Your task to perform on an android device: toggle pop-ups in chrome Image 0: 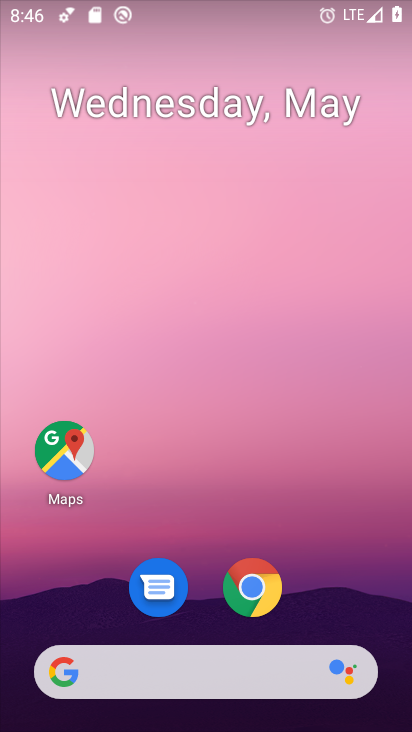
Step 0: click (258, 571)
Your task to perform on an android device: toggle pop-ups in chrome Image 1: 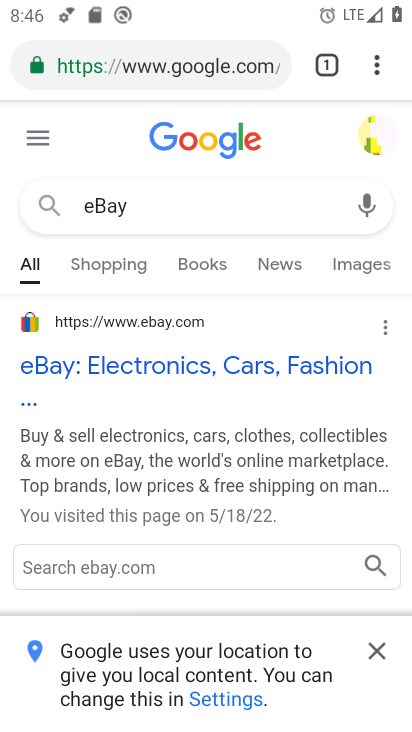
Step 1: click (381, 59)
Your task to perform on an android device: toggle pop-ups in chrome Image 2: 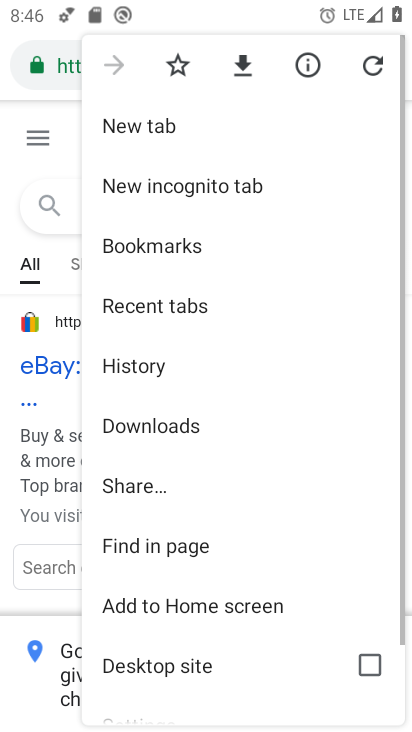
Step 2: drag from (163, 598) to (184, 362)
Your task to perform on an android device: toggle pop-ups in chrome Image 3: 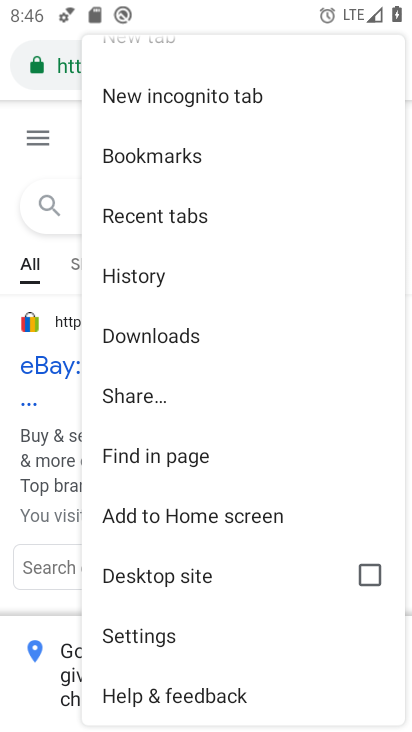
Step 3: click (153, 635)
Your task to perform on an android device: toggle pop-ups in chrome Image 4: 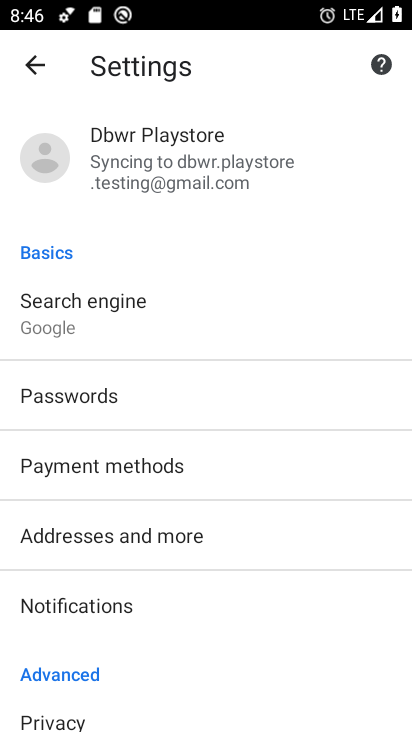
Step 4: drag from (168, 558) to (188, 309)
Your task to perform on an android device: toggle pop-ups in chrome Image 5: 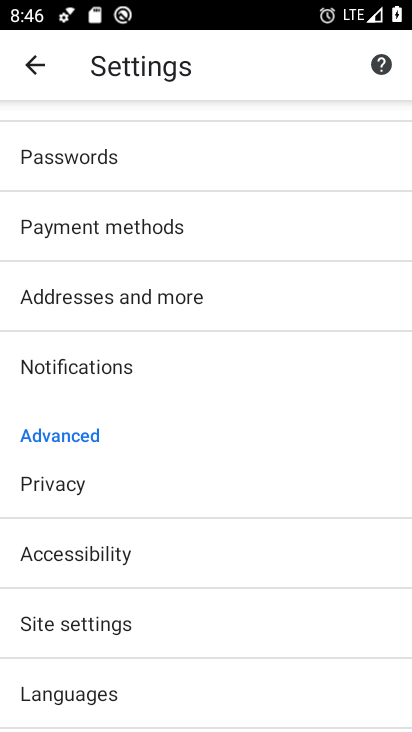
Step 5: click (94, 623)
Your task to perform on an android device: toggle pop-ups in chrome Image 6: 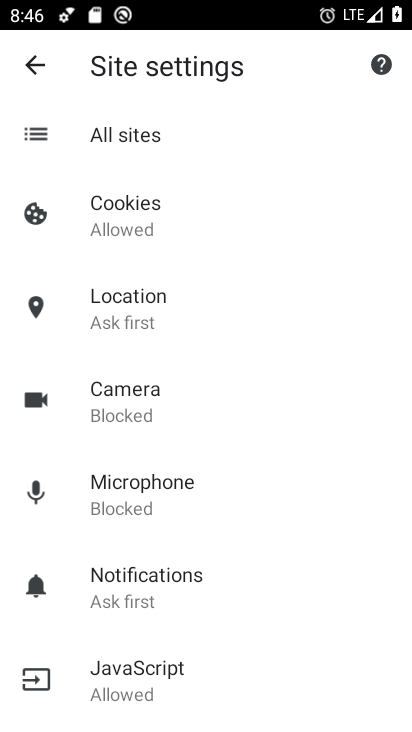
Step 6: drag from (162, 611) to (224, 398)
Your task to perform on an android device: toggle pop-ups in chrome Image 7: 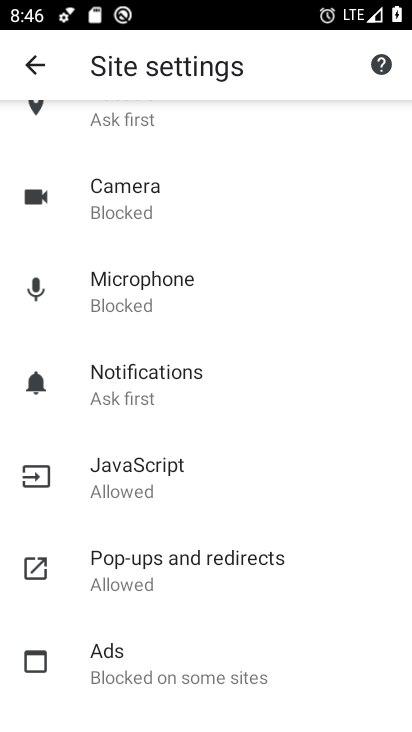
Step 7: click (139, 574)
Your task to perform on an android device: toggle pop-ups in chrome Image 8: 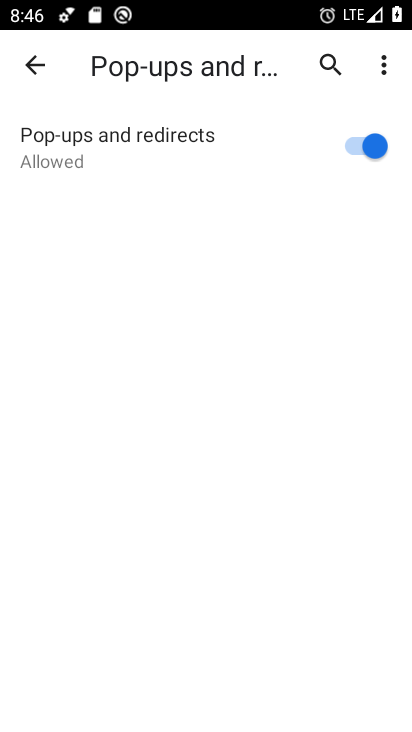
Step 8: click (348, 147)
Your task to perform on an android device: toggle pop-ups in chrome Image 9: 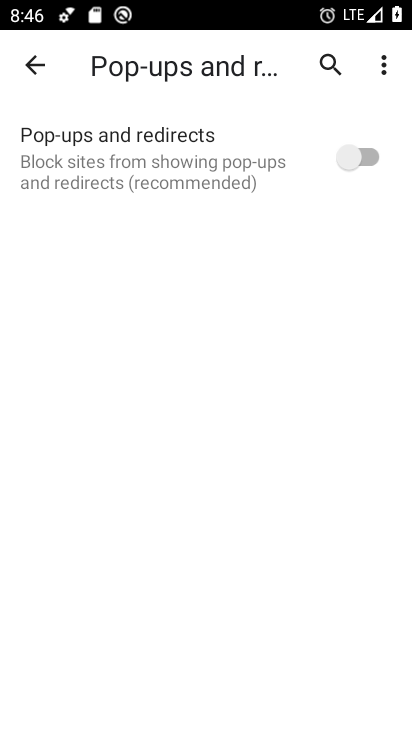
Step 9: task complete